Your task to perform on an android device: change the clock display to show seconds Image 0: 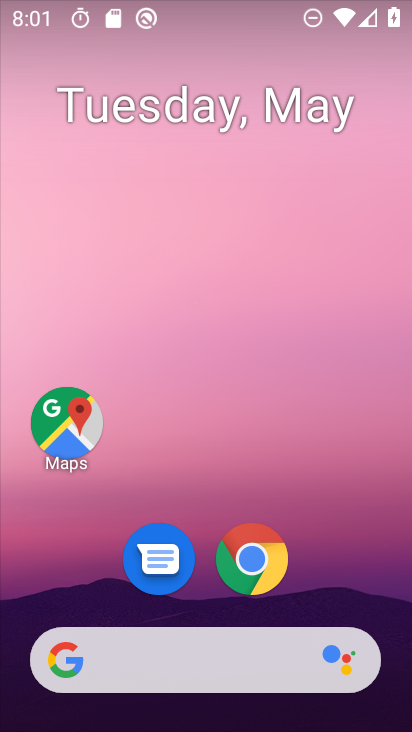
Step 0: drag from (365, 258) to (270, 5)
Your task to perform on an android device: change the clock display to show seconds Image 1: 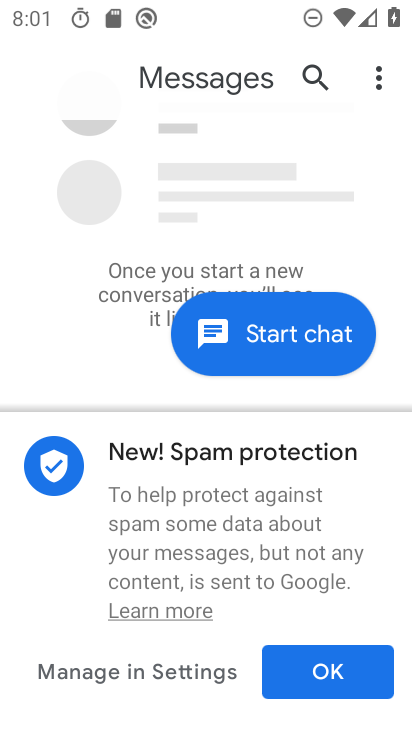
Step 1: press home button
Your task to perform on an android device: change the clock display to show seconds Image 2: 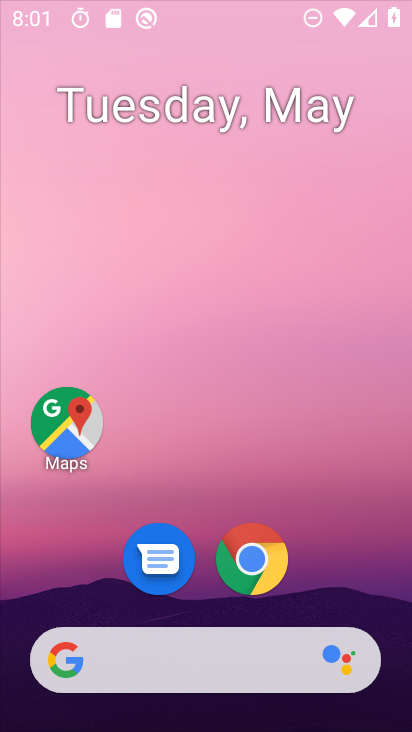
Step 2: drag from (401, 661) to (260, 82)
Your task to perform on an android device: change the clock display to show seconds Image 3: 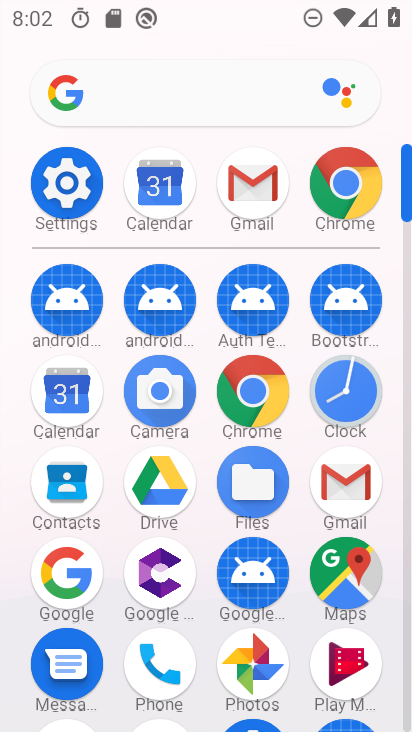
Step 3: click (357, 376)
Your task to perform on an android device: change the clock display to show seconds Image 4: 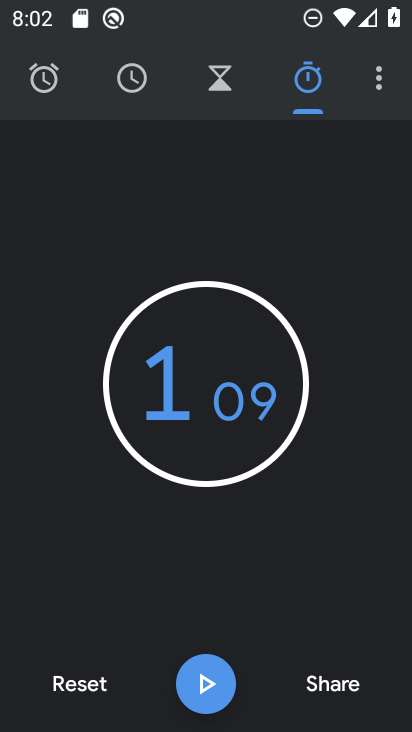
Step 4: click (373, 77)
Your task to perform on an android device: change the clock display to show seconds Image 5: 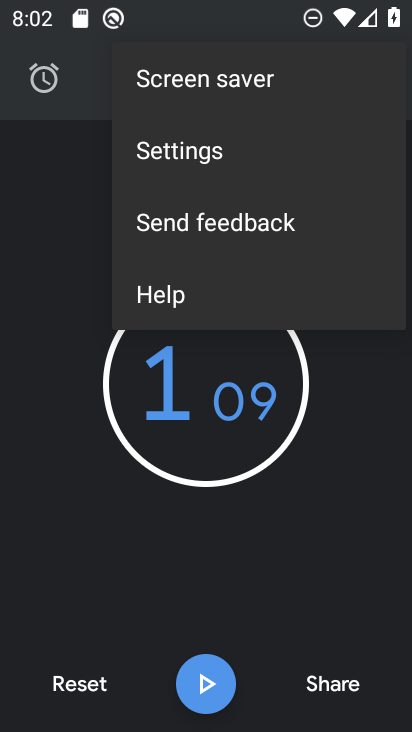
Step 5: click (247, 142)
Your task to perform on an android device: change the clock display to show seconds Image 6: 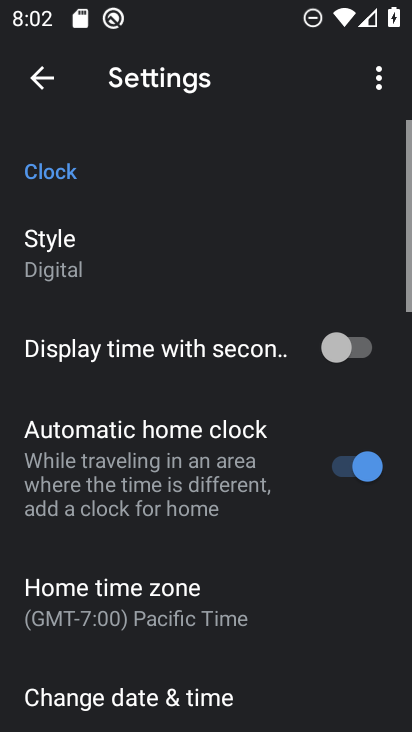
Step 6: click (310, 313)
Your task to perform on an android device: change the clock display to show seconds Image 7: 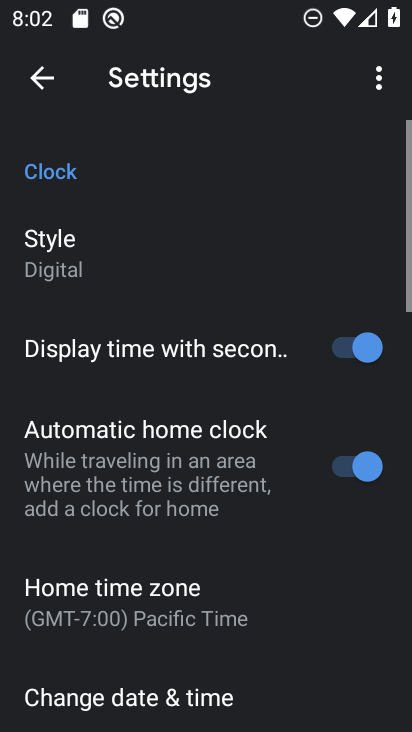
Step 7: task complete